Your task to perform on an android device: Open battery settings Image 0: 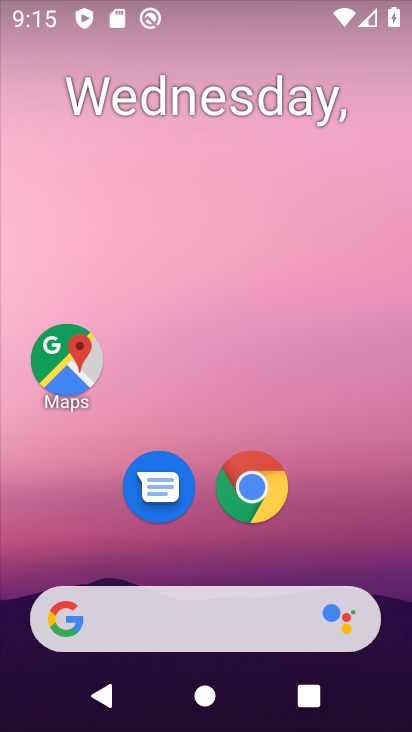
Step 0: drag from (244, 685) to (186, 66)
Your task to perform on an android device: Open battery settings Image 1: 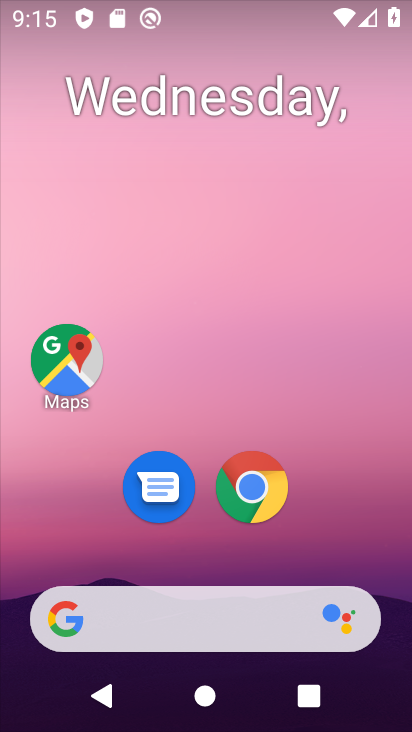
Step 1: drag from (239, 680) to (200, 63)
Your task to perform on an android device: Open battery settings Image 2: 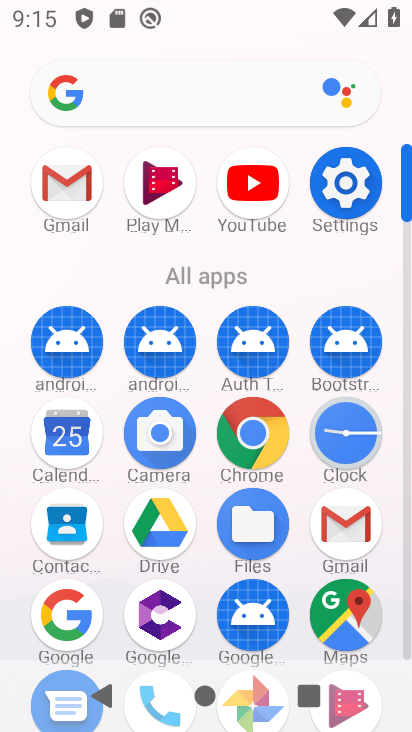
Step 2: click (336, 154)
Your task to perform on an android device: Open battery settings Image 3: 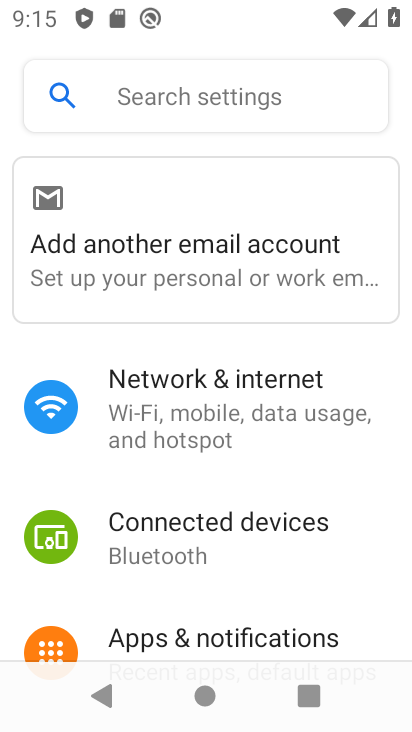
Step 3: drag from (259, 585) to (243, 35)
Your task to perform on an android device: Open battery settings Image 4: 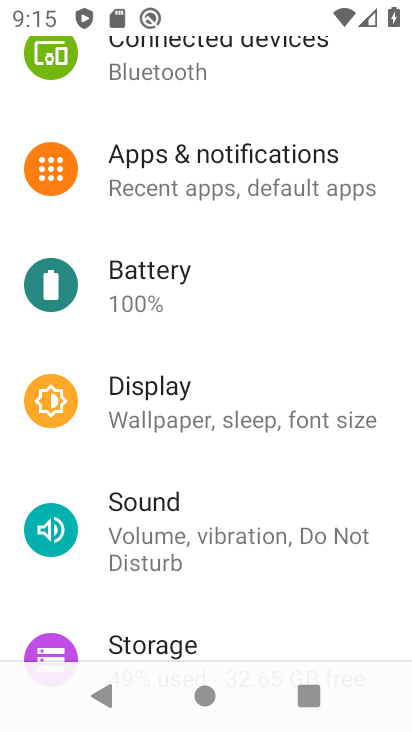
Step 4: click (227, 278)
Your task to perform on an android device: Open battery settings Image 5: 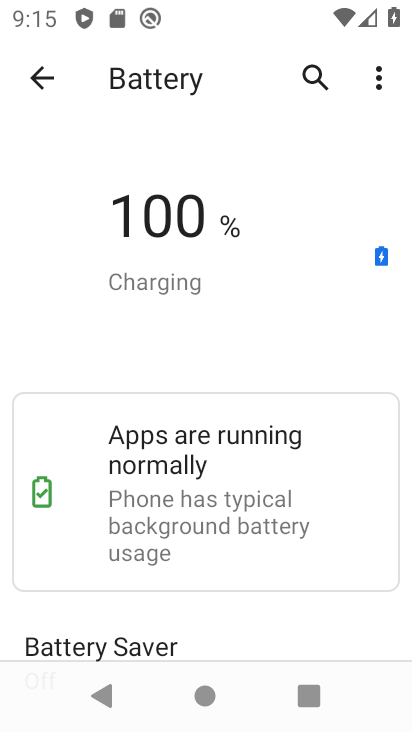
Step 5: task complete